Your task to perform on an android device: change timer sound Image 0: 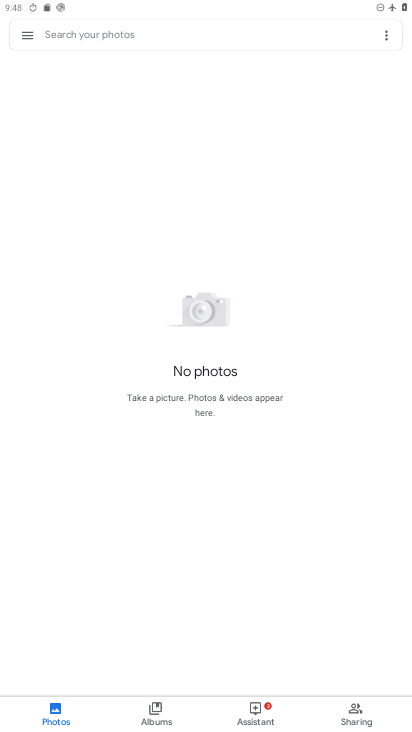
Step 0: press home button
Your task to perform on an android device: change timer sound Image 1: 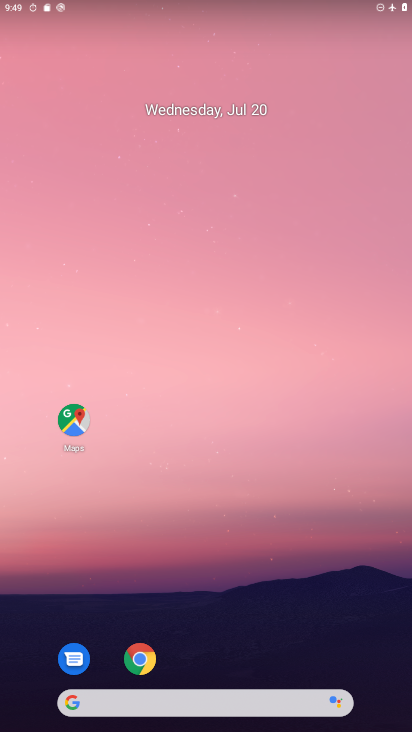
Step 1: drag from (228, 659) to (240, 114)
Your task to perform on an android device: change timer sound Image 2: 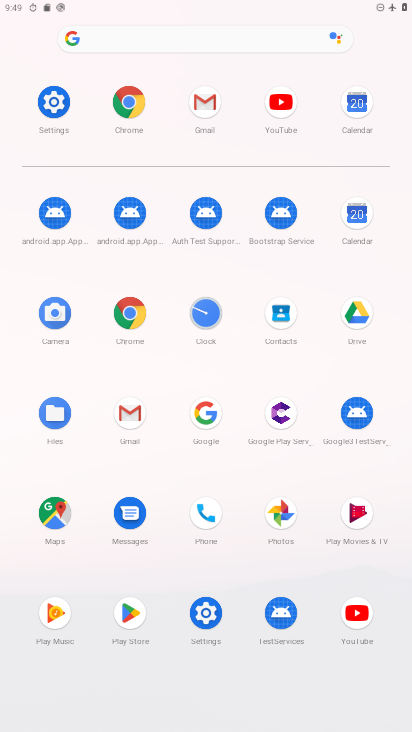
Step 2: click (206, 320)
Your task to perform on an android device: change timer sound Image 3: 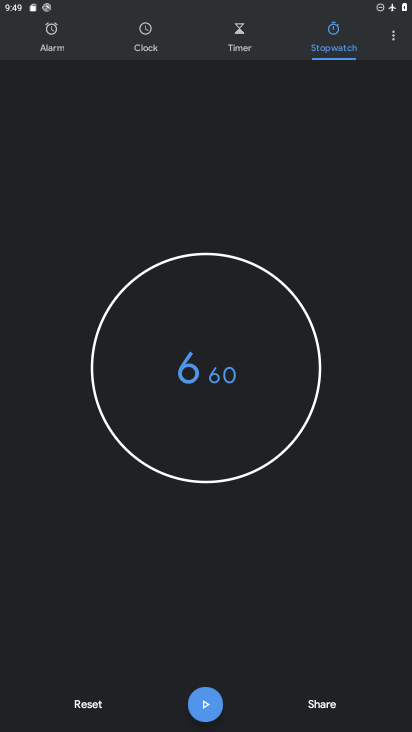
Step 3: click (402, 38)
Your task to perform on an android device: change timer sound Image 4: 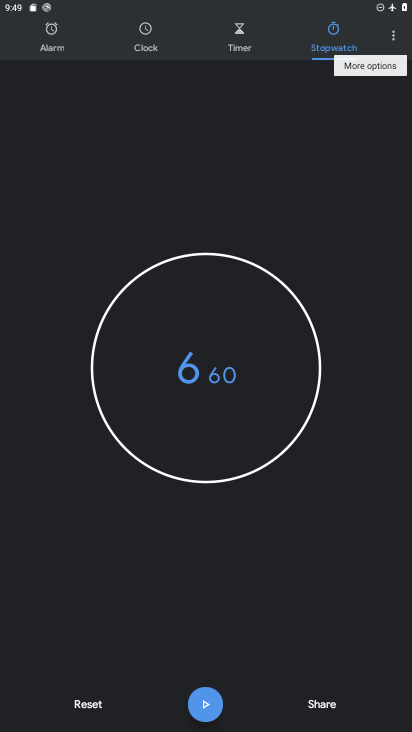
Step 4: click (402, 38)
Your task to perform on an android device: change timer sound Image 5: 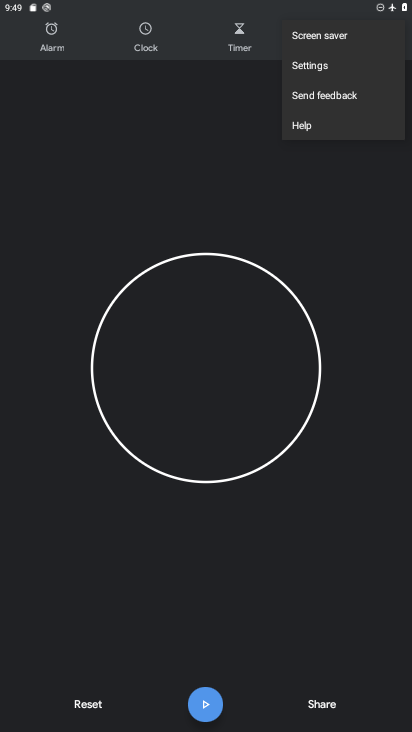
Step 5: click (308, 73)
Your task to perform on an android device: change timer sound Image 6: 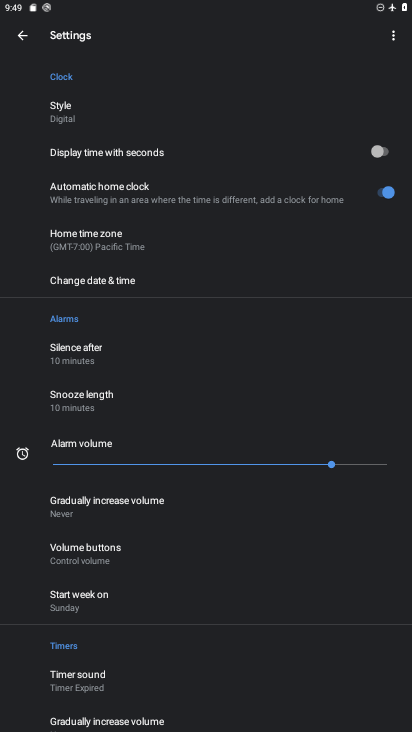
Step 6: click (73, 673)
Your task to perform on an android device: change timer sound Image 7: 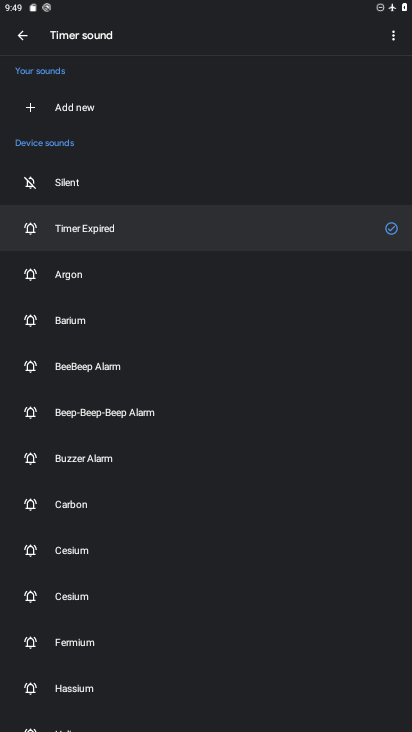
Step 7: click (59, 276)
Your task to perform on an android device: change timer sound Image 8: 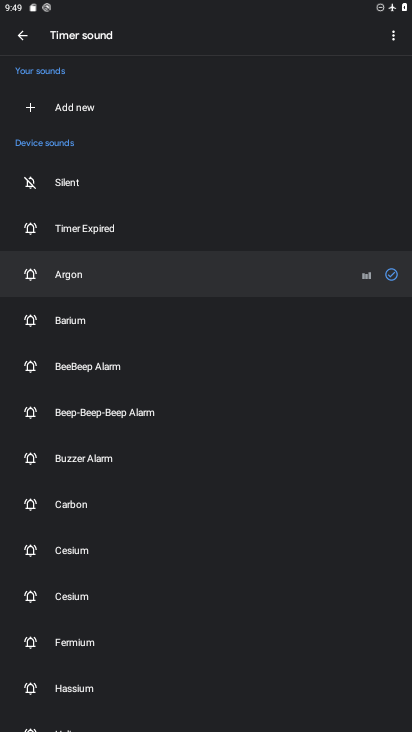
Step 8: task complete